Your task to perform on an android device: search for starred emails in the gmail app Image 0: 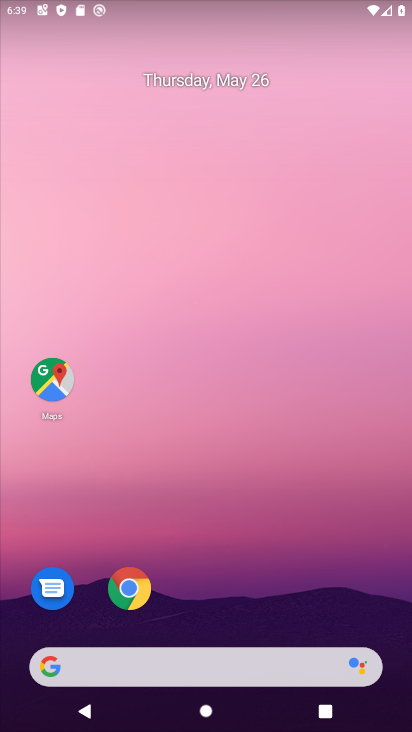
Step 0: drag from (363, 603) to (249, 84)
Your task to perform on an android device: search for starred emails in the gmail app Image 1: 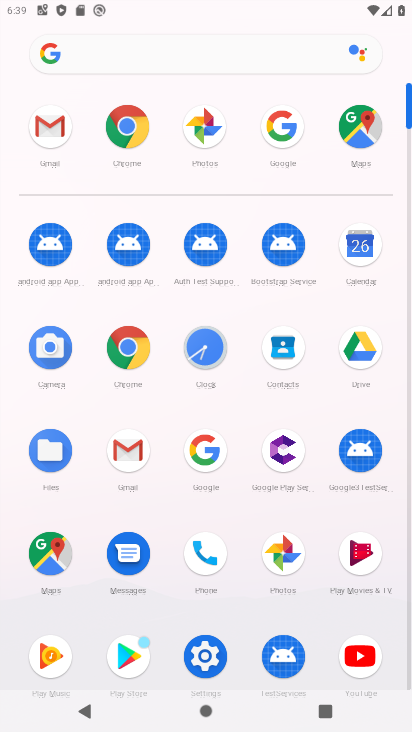
Step 1: click (111, 463)
Your task to perform on an android device: search for starred emails in the gmail app Image 2: 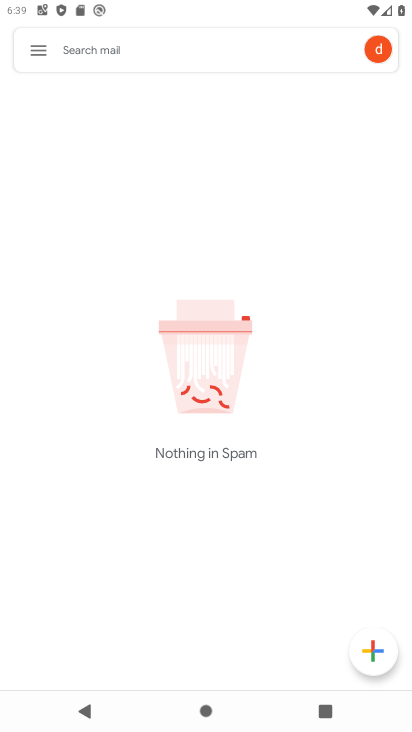
Step 2: click (33, 51)
Your task to perform on an android device: search for starred emails in the gmail app Image 3: 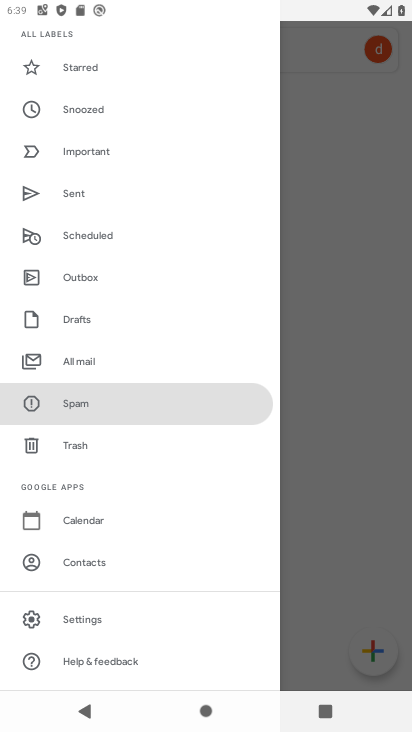
Step 3: click (97, 75)
Your task to perform on an android device: search for starred emails in the gmail app Image 4: 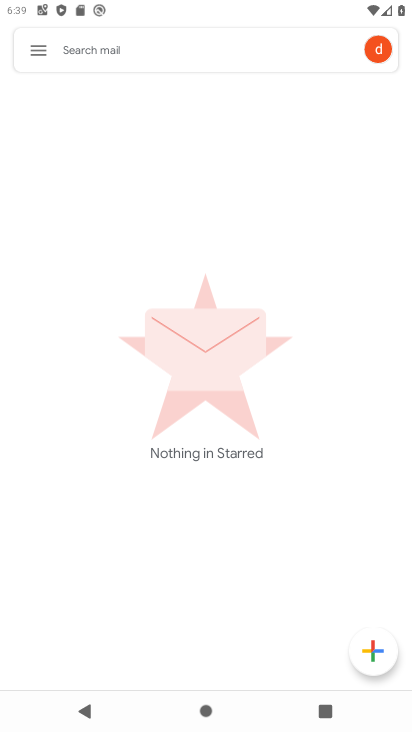
Step 4: task complete